Your task to perform on an android device: Open the calendar and show me this week's events Image 0: 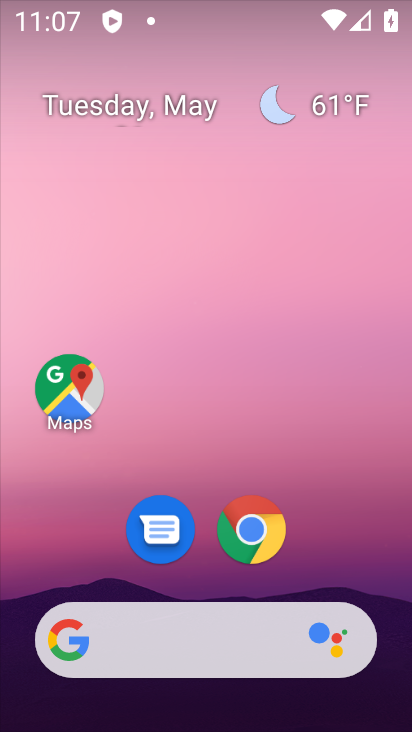
Step 0: drag from (370, 562) to (49, 76)
Your task to perform on an android device: Open the calendar and show me this week's events Image 1: 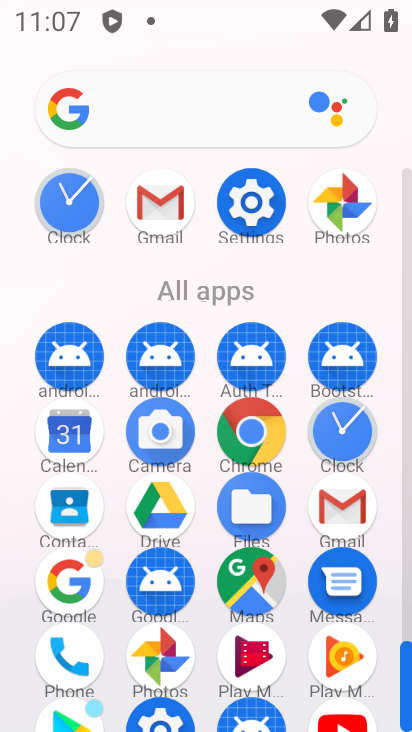
Step 1: click (83, 435)
Your task to perform on an android device: Open the calendar and show me this week's events Image 2: 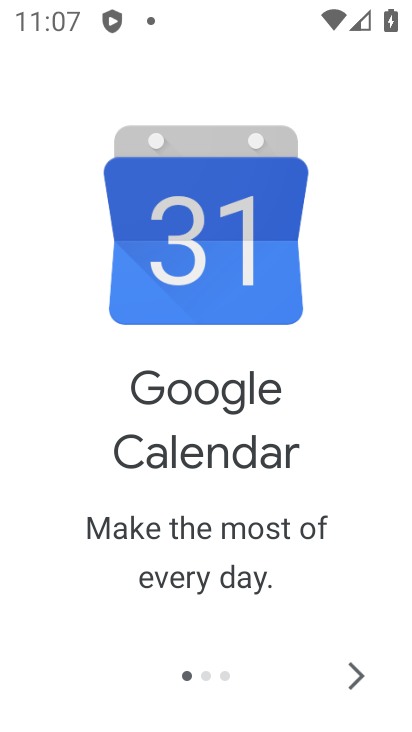
Step 2: click (358, 679)
Your task to perform on an android device: Open the calendar and show me this week's events Image 3: 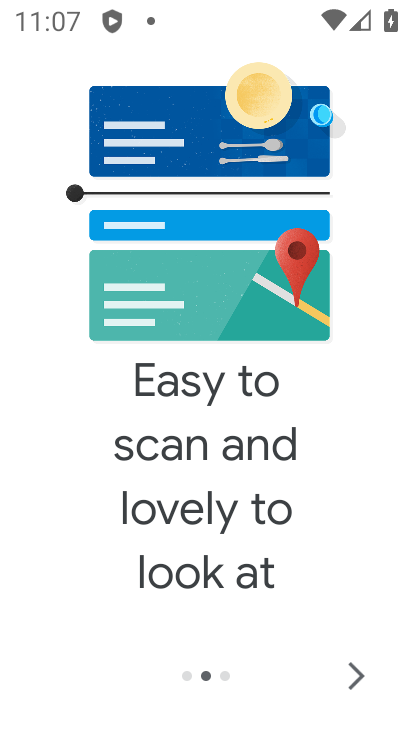
Step 3: click (358, 679)
Your task to perform on an android device: Open the calendar and show me this week's events Image 4: 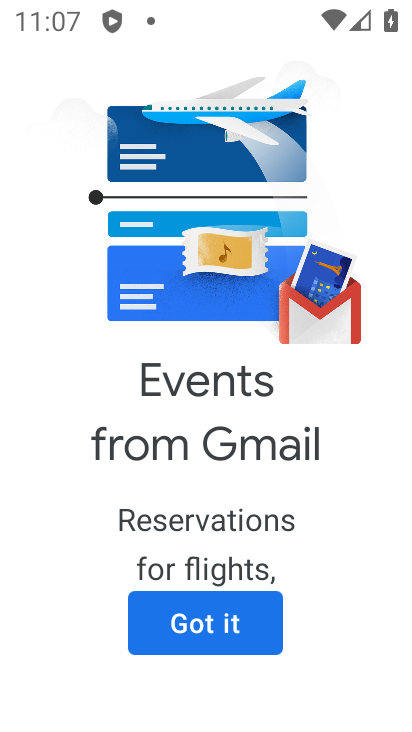
Step 4: click (244, 622)
Your task to perform on an android device: Open the calendar and show me this week's events Image 5: 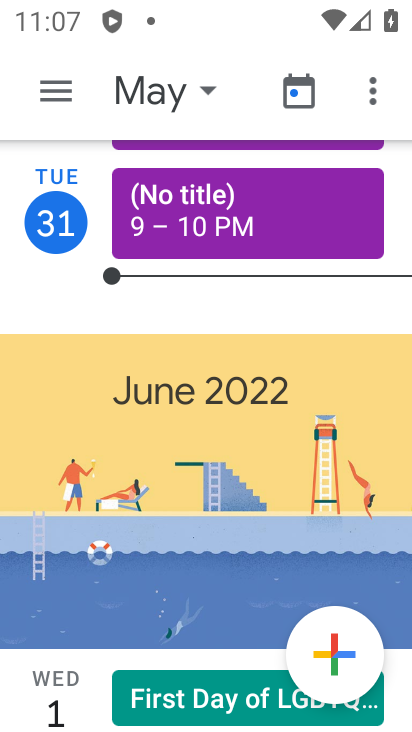
Step 5: click (183, 105)
Your task to perform on an android device: Open the calendar and show me this week's events Image 6: 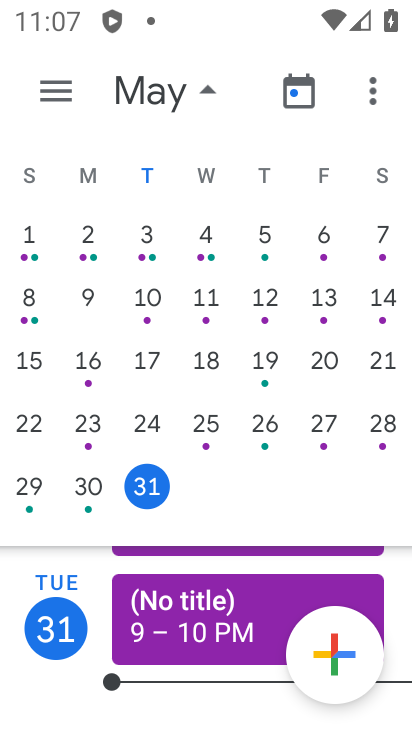
Step 6: click (62, 101)
Your task to perform on an android device: Open the calendar and show me this week's events Image 7: 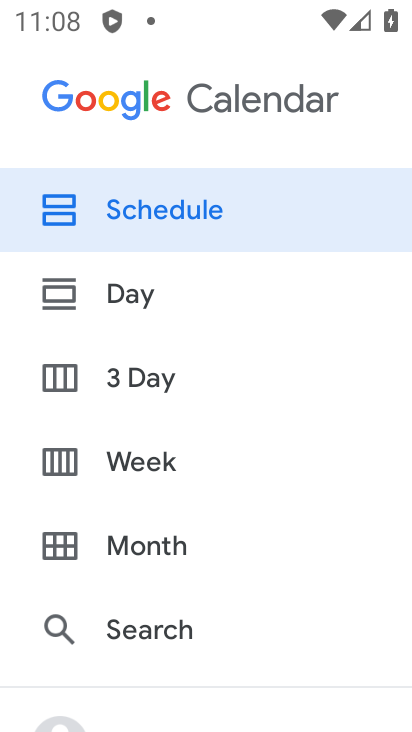
Step 7: click (129, 466)
Your task to perform on an android device: Open the calendar and show me this week's events Image 8: 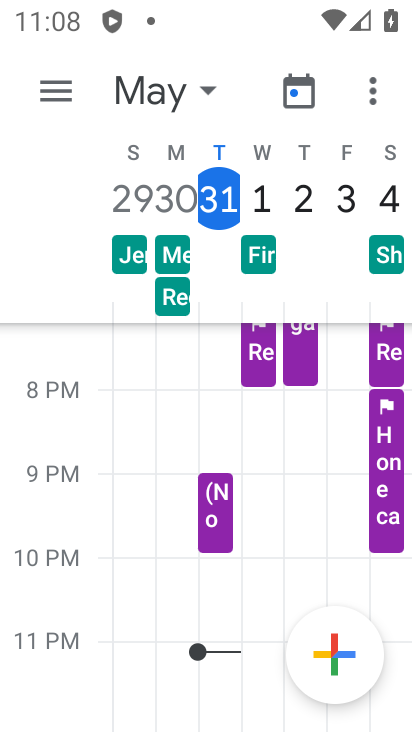
Step 8: task complete